Your task to perform on an android device: turn off smart reply in the gmail app Image 0: 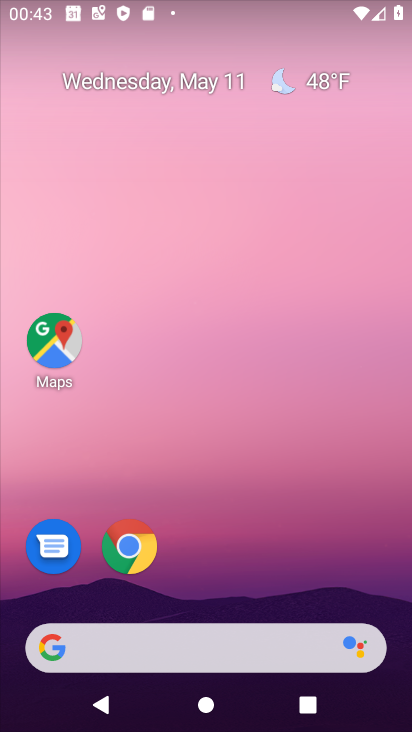
Step 0: drag from (203, 583) to (203, 208)
Your task to perform on an android device: turn off smart reply in the gmail app Image 1: 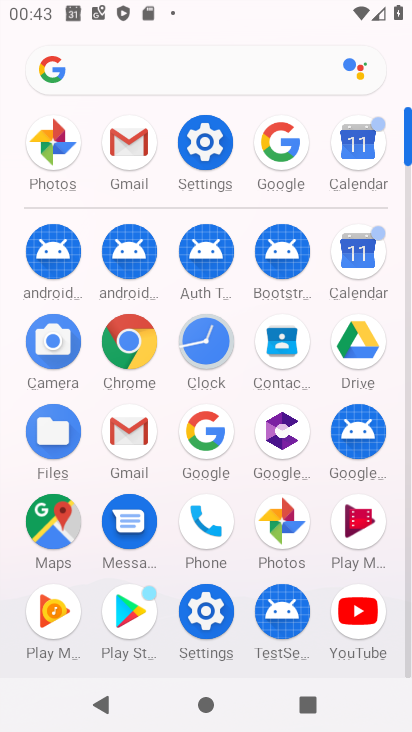
Step 1: click (143, 138)
Your task to perform on an android device: turn off smart reply in the gmail app Image 2: 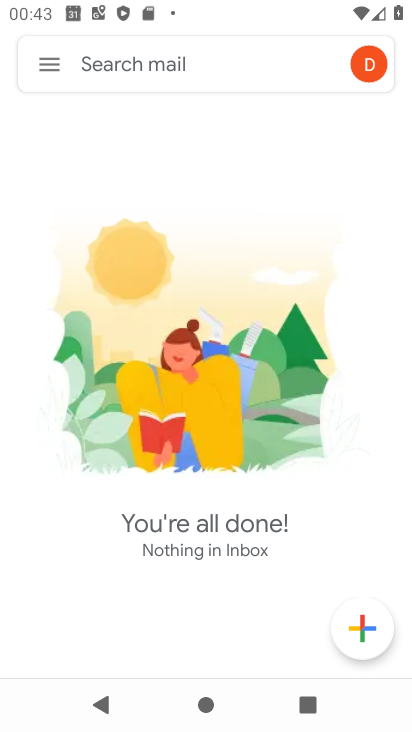
Step 2: click (57, 56)
Your task to perform on an android device: turn off smart reply in the gmail app Image 3: 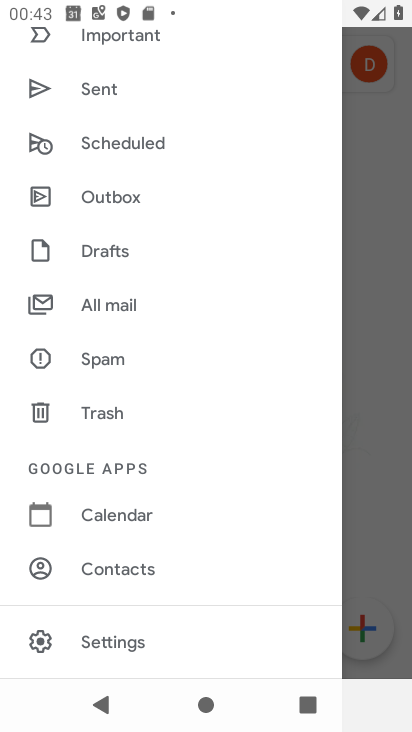
Step 3: click (146, 645)
Your task to perform on an android device: turn off smart reply in the gmail app Image 4: 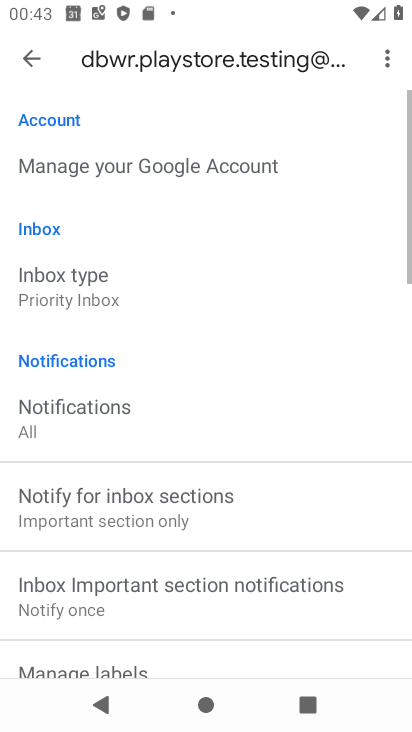
Step 4: drag from (258, 592) to (285, 274)
Your task to perform on an android device: turn off smart reply in the gmail app Image 5: 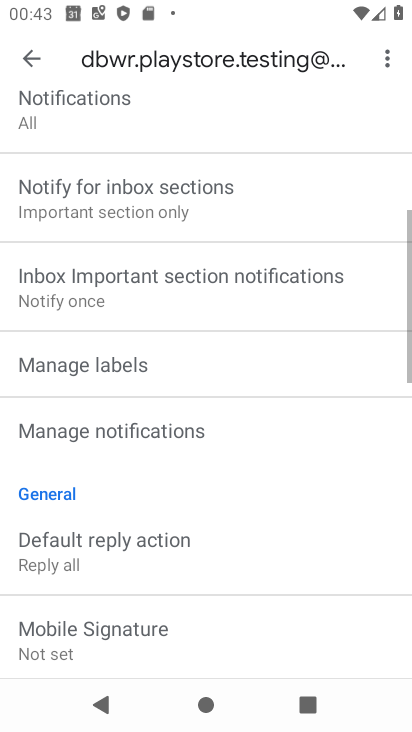
Step 5: drag from (297, 538) to (317, 205)
Your task to perform on an android device: turn off smart reply in the gmail app Image 6: 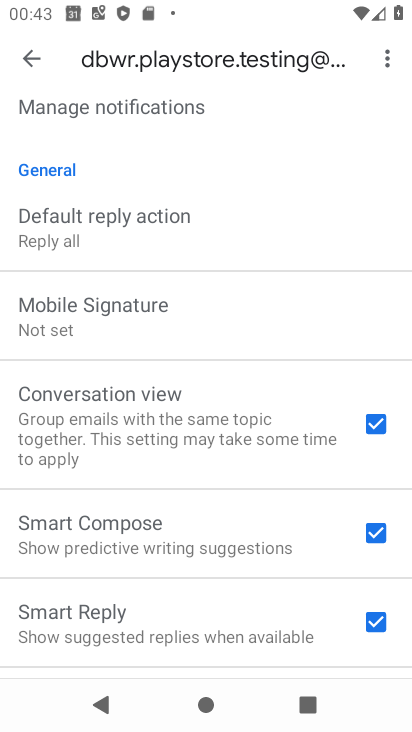
Step 6: click (369, 614)
Your task to perform on an android device: turn off smart reply in the gmail app Image 7: 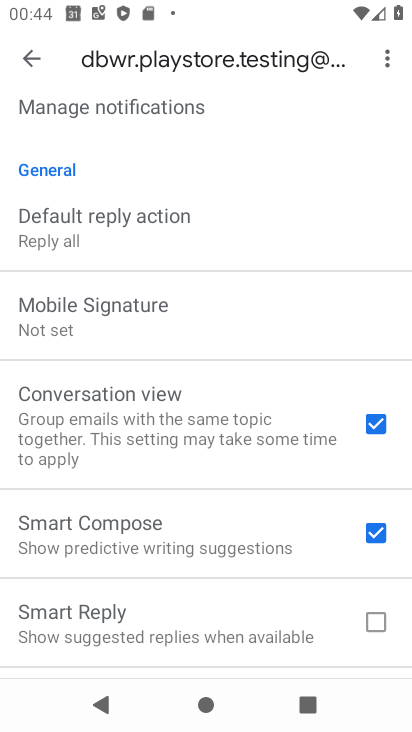
Step 7: task complete